Your task to perform on an android device: Open calendar and show me the second week of next month Image 0: 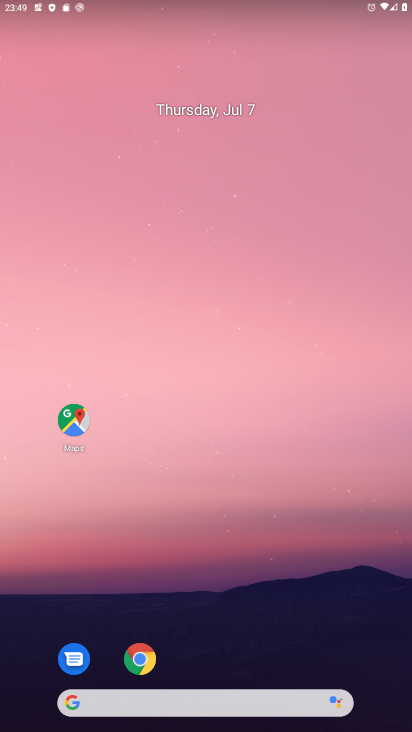
Step 0: click (188, 116)
Your task to perform on an android device: Open calendar and show me the second week of next month Image 1: 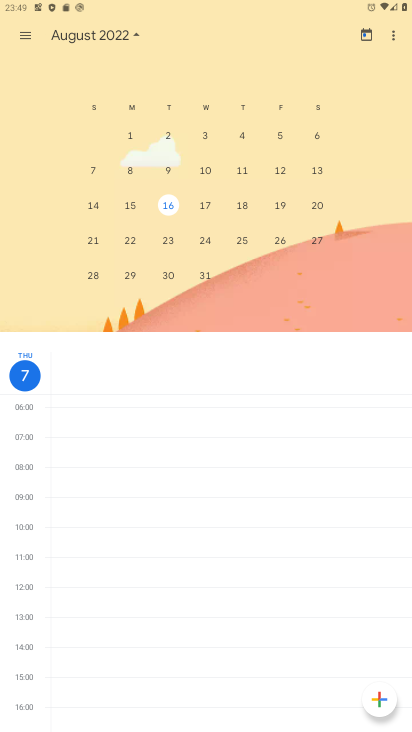
Step 1: click (167, 160)
Your task to perform on an android device: Open calendar and show me the second week of next month Image 2: 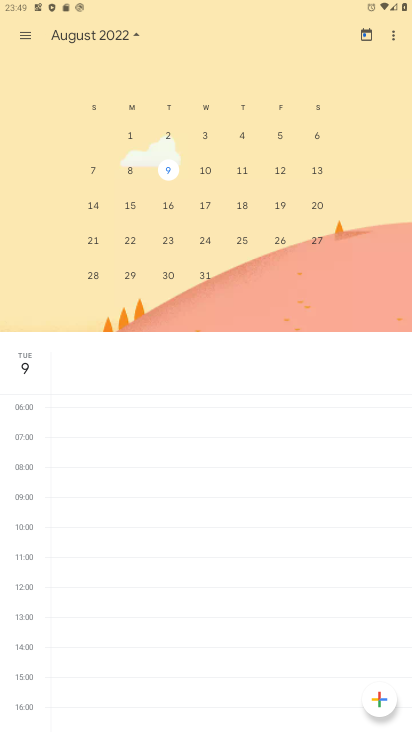
Step 2: task complete